Your task to perform on an android device: refresh tabs in the chrome app Image 0: 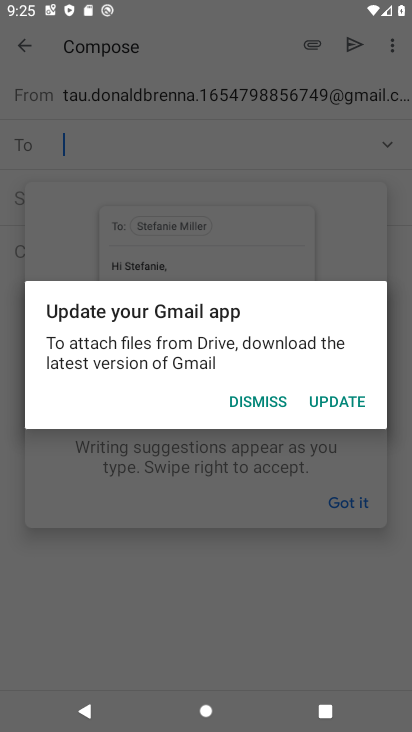
Step 0: press home button
Your task to perform on an android device: refresh tabs in the chrome app Image 1: 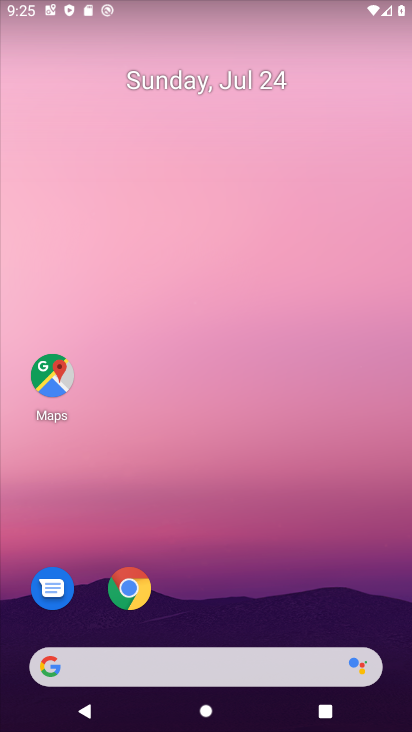
Step 1: click (134, 587)
Your task to perform on an android device: refresh tabs in the chrome app Image 2: 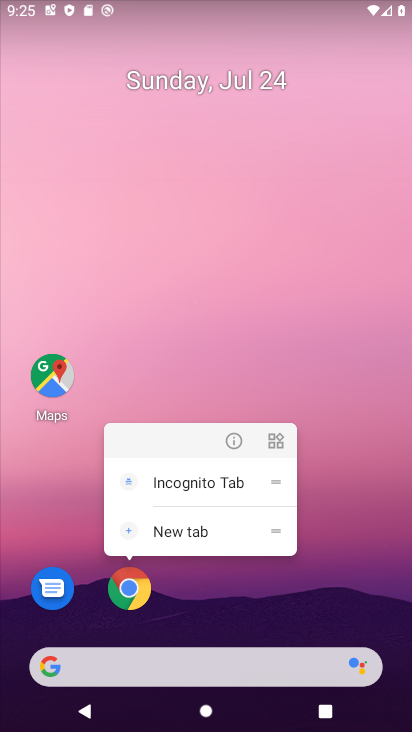
Step 2: click (134, 587)
Your task to perform on an android device: refresh tabs in the chrome app Image 3: 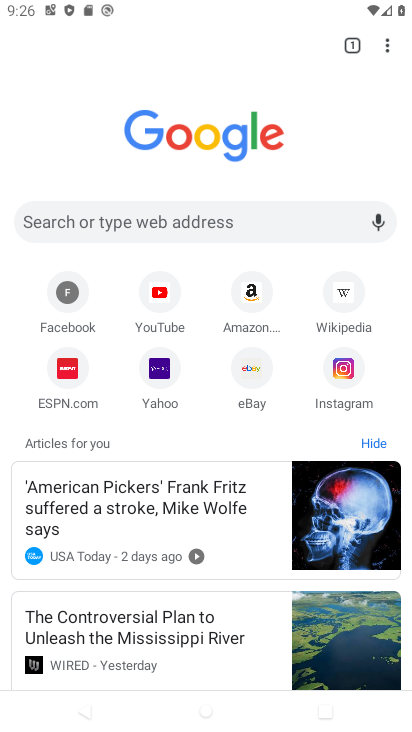
Step 3: click (386, 49)
Your task to perform on an android device: refresh tabs in the chrome app Image 4: 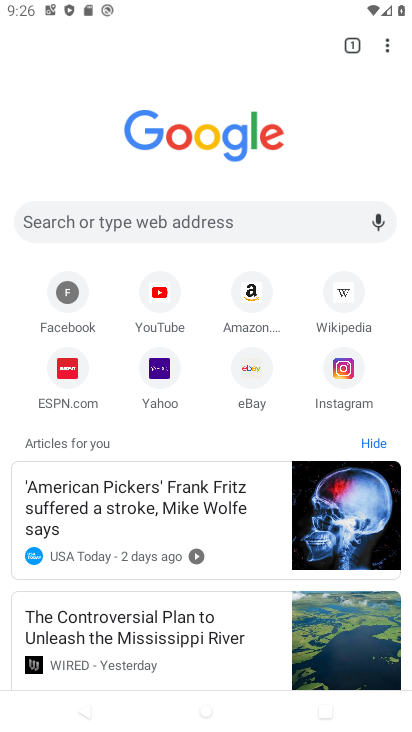
Step 4: click (389, 44)
Your task to perform on an android device: refresh tabs in the chrome app Image 5: 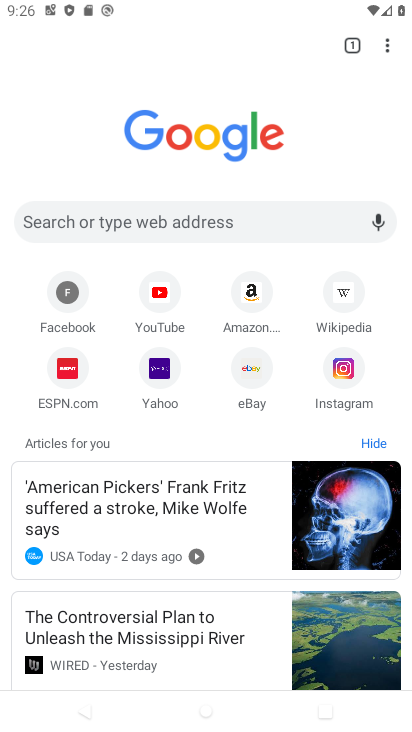
Step 5: click (383, 43)
Your task to perform on an android device: refresh tabs in the chrome app Image 6: 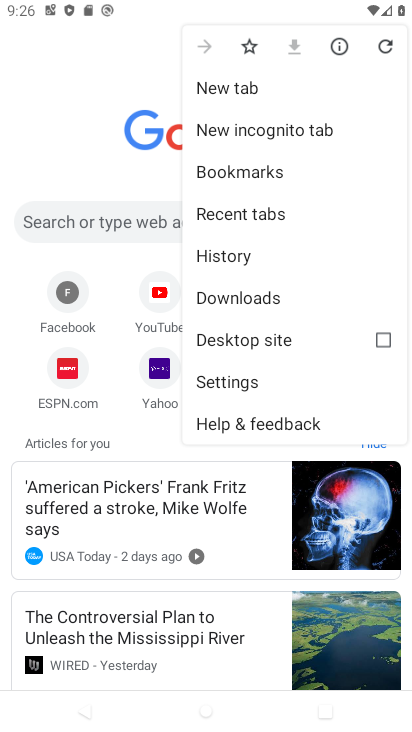
Step 6: click (397, 41)
Your task to perform on an android device: refresh tabs in the chrome app Image 7: 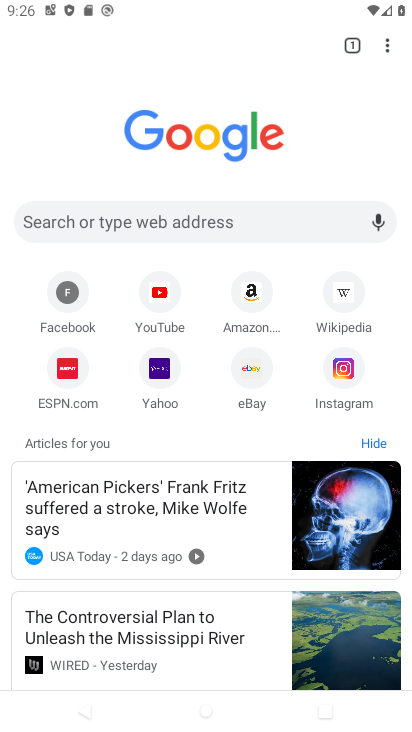
Step 7: task complete